Your task to perform on an android device: change the upload size in google photos Image 0: 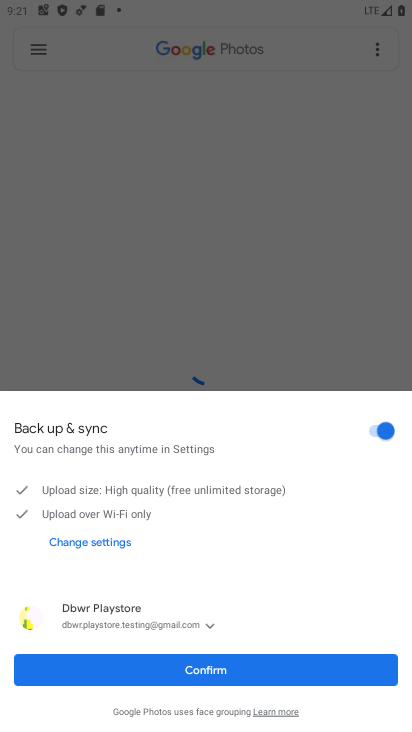
Step 0: click (123, 667)
Your task to perform on an android device: change the upload size in google photos Image 1: 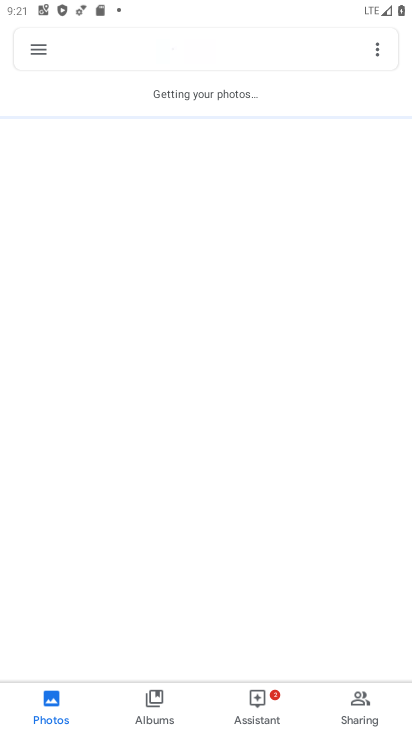
Step 1: press back button
Your task to perform on an android device: change the upload size in google photos Image 2: 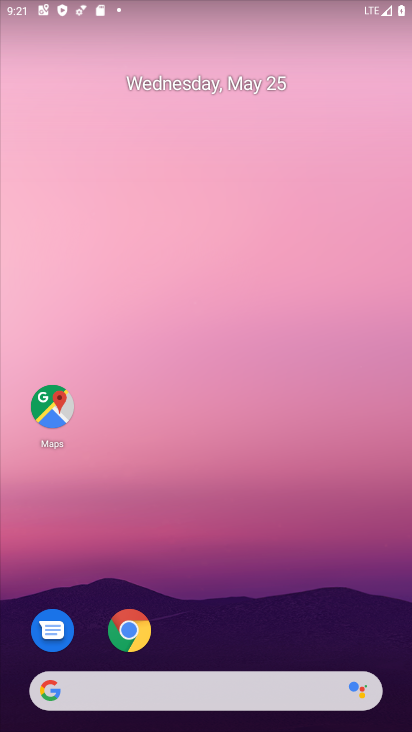
Step 2: drag from (218, 670) to (292, 8)
Your task to perform on an android device: change the upload size in google photos Image 3: 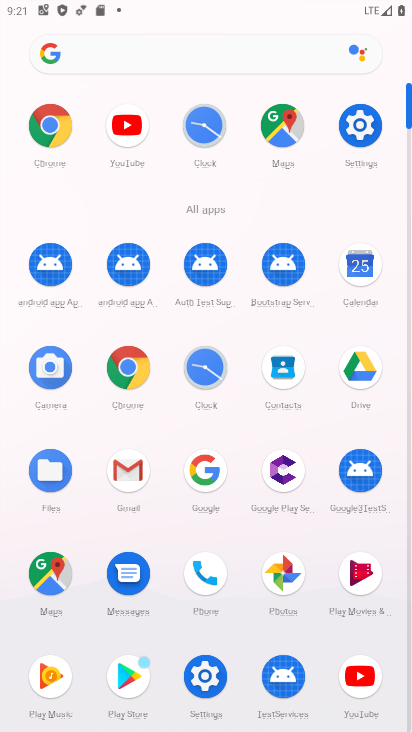
Step 3: click (286, 579)
Your task to perform on an android device: change the upload size in google photos Image 4: 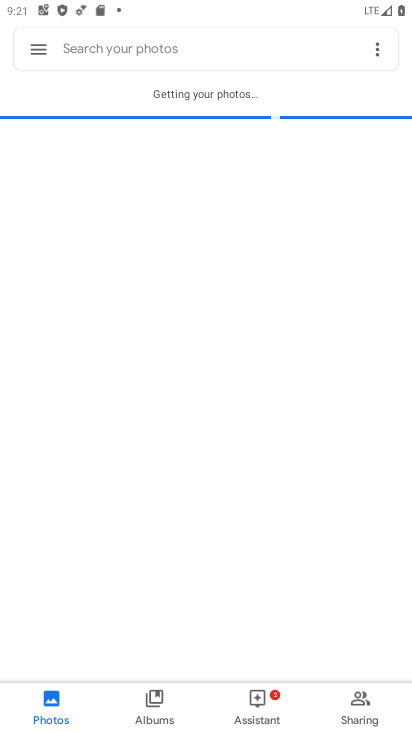
Step 4: click (39, 48)
Your task to perform on an android device: change the upload size in google photos Image 5: 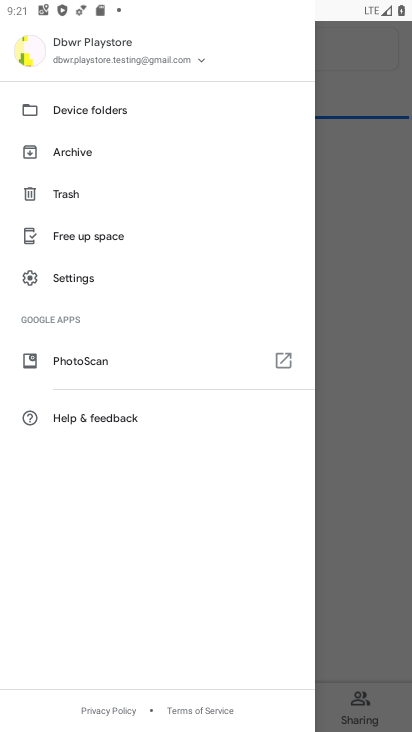
Step 5: click (72, 285)
Your task to perform on an android device: change the upload size in google photos Image 6: 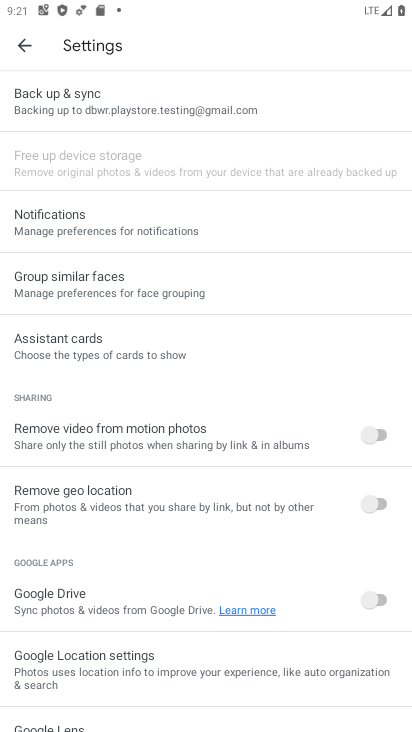
Step 6: click (139, 104)
Your task to perform on an android device: change the upload size in google photos Image 7: 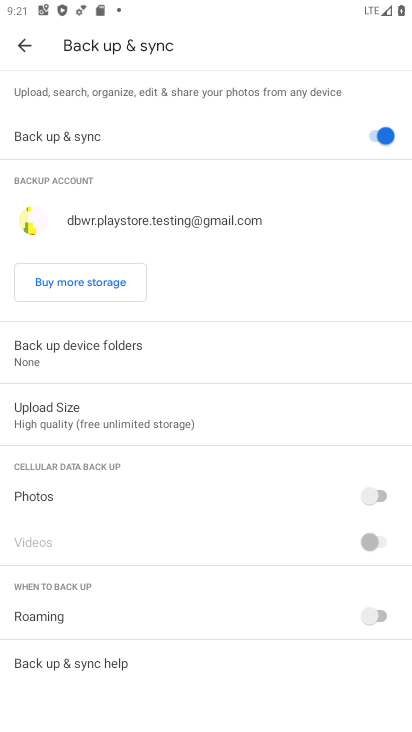
Step 7: click (98, 407)
Your task to perform on an android device: change the upload size in google photos Image 8: 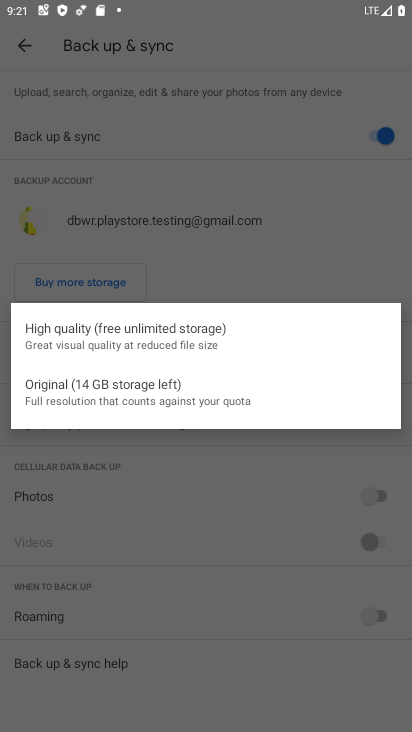
Step 8: click (239, 264)
Your task to perform on an android device: change the upload size in google photos Image 9: 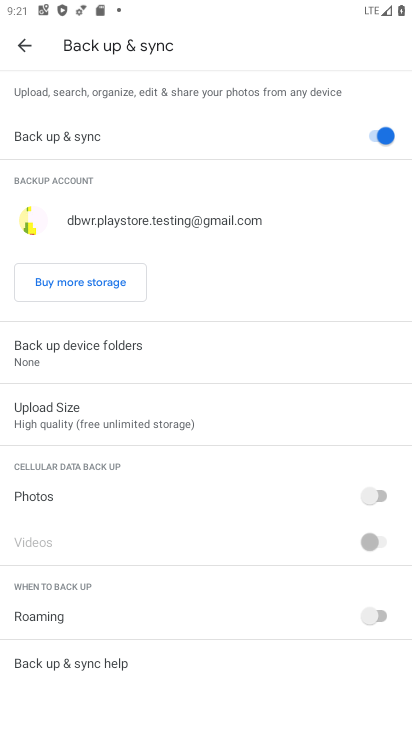
Step 9: click (105, 423)
Your task to perform on an android device: change the upload size in google photos Image 10: 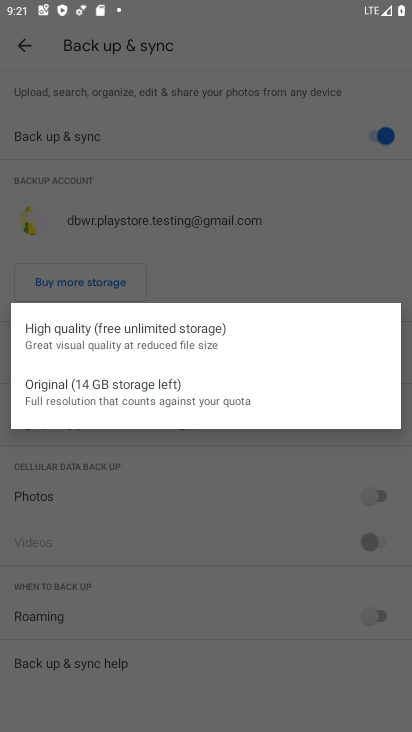
Step 10: click (250, 257)
Your task to perform on an android device: change the upload size in google photos Image 11: 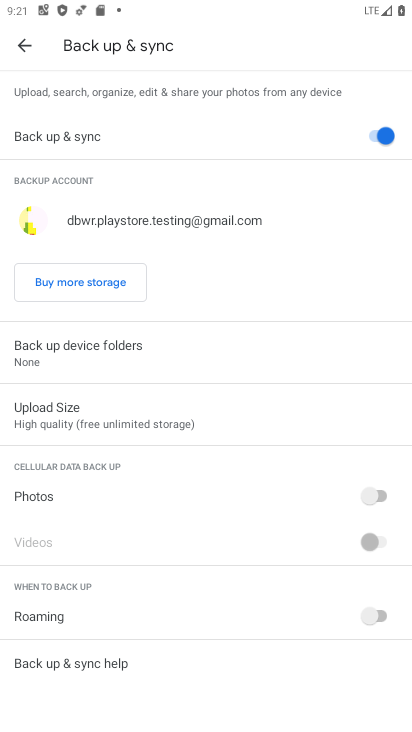
Step 11: click (83, 401)
Your task to perform on an android device: change the upload size in google photos Image 12: 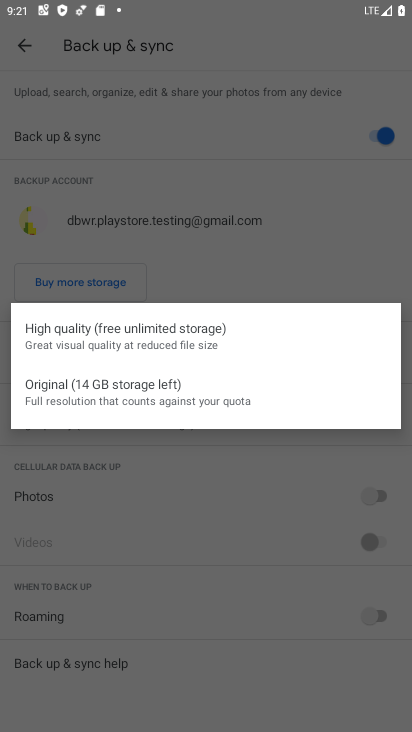
Step 12: click (111, 387)
Your task to perform on an android device: change the upload size in google photos Image 13: 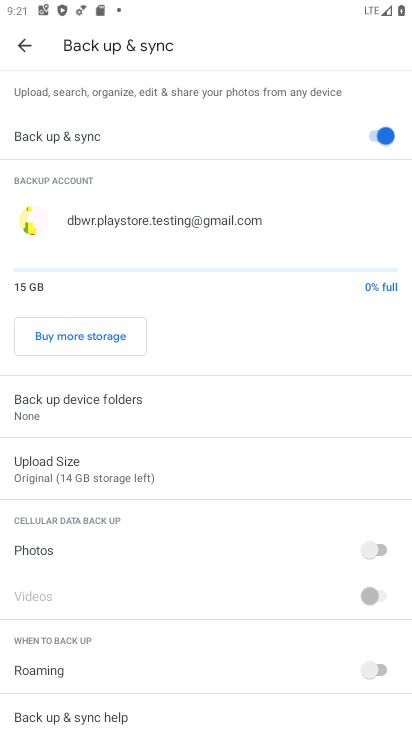
Step 13: task complete